Your task to perform on an android device: turn off translation in the chrome app Image 0: 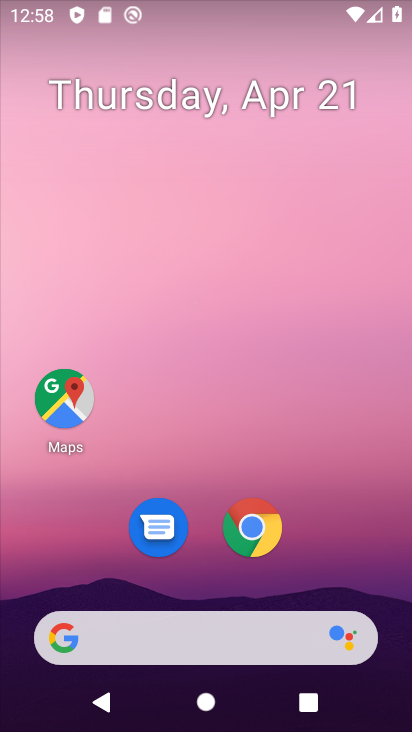
Step 0: drag from (333, 541) to (355, 89)
Your task to perform on an android device: turn off translation in the chrome app Image 1: 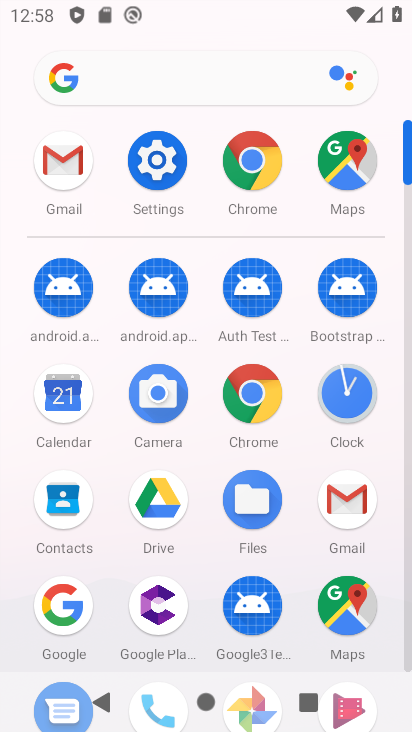
Step 1: click (264, 402)
Your task to perform on an android device: turn off translation in the chrome app Image 2: 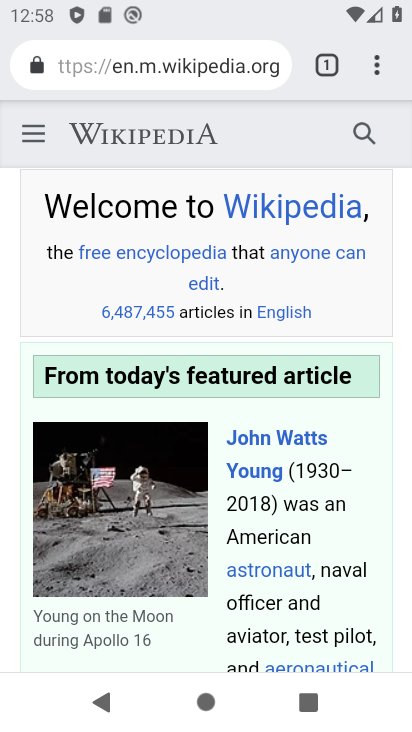
Step 2: click (377, 74)
Your task to perform on an android device: turn off translation in the chrome app Image 3: 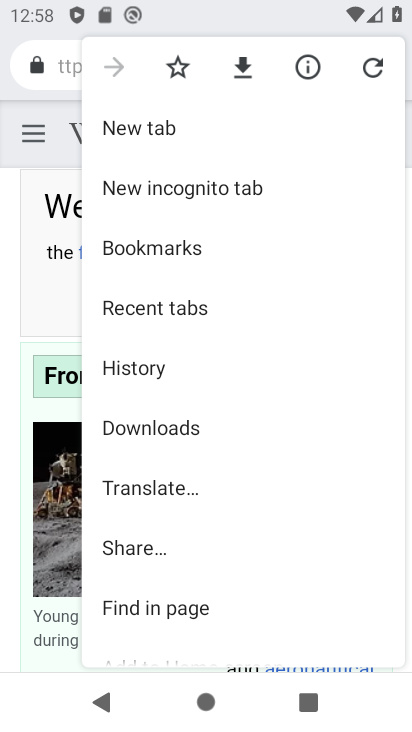
Step 3: drag from (301, 551) to (293, 363)
Your task to perform on an android device: turn off translation in the chrome app Image 4: 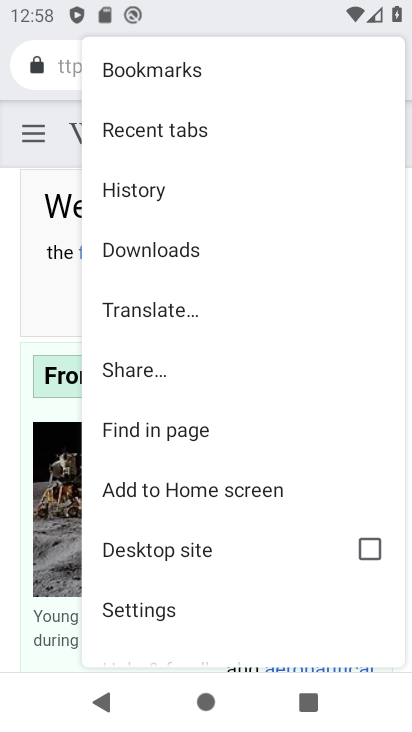
Step 4: drag from (270, 584) to (269, 431)
Your task to perform on an android device: turn off translation in the chrome app Image 5: 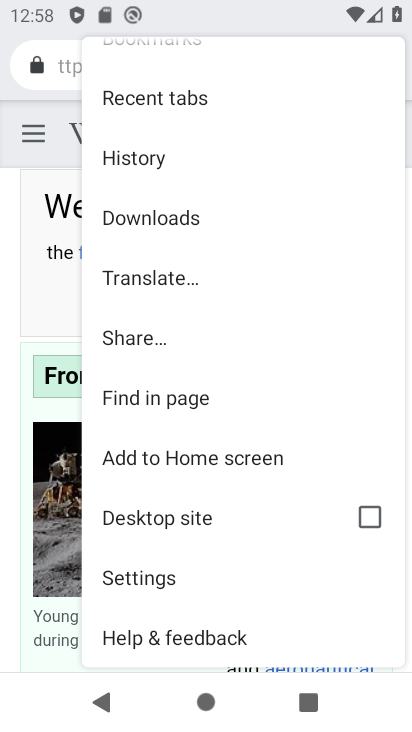
Step 5: click (177, 577)
Your task to perform on an android device: turn off translation in the chrome app Image 6: 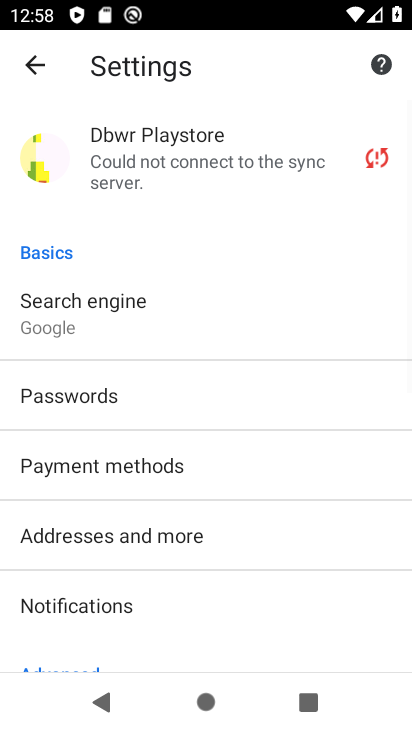
Step 6: drag from (267, 581) to (275, 459)
Your task to perform on an android device: turn off translation in the chrome app Image 7: 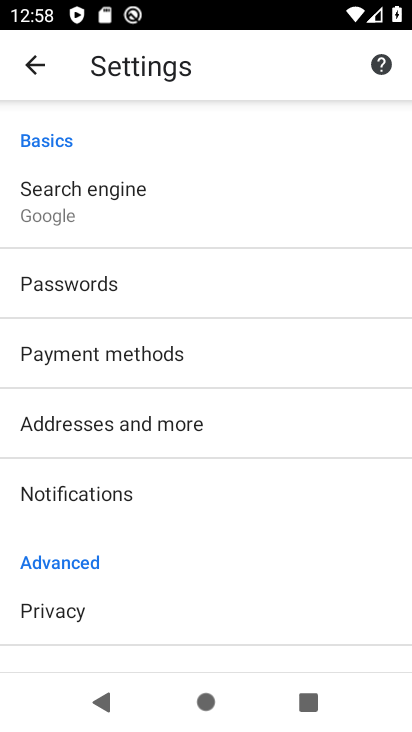
Step 7: drag from (289, 577) to (294, 443)
Your task to perform on an android device: turn off translation in the chrome app Image 8: 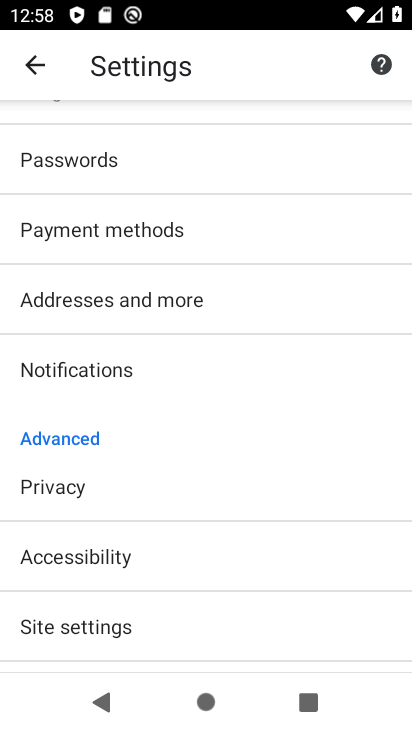
Step 8: drag from (298, 608) to (311, 443)
Your task to perform on an android device: turn off translation in the chrome app Image 9: 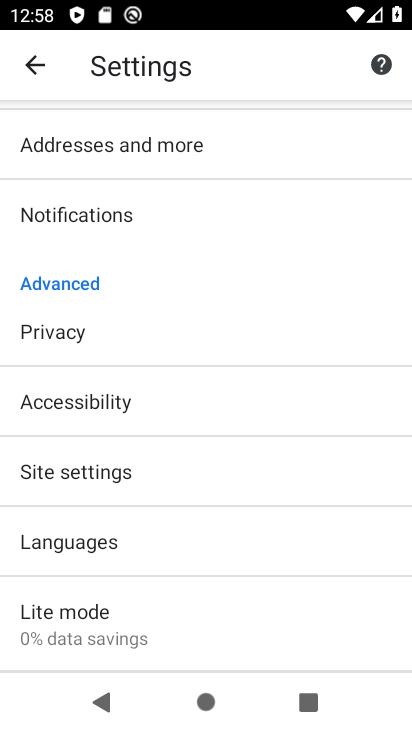
Step 9: drag from (303, 611) to (306, 471)
Your task to perform on an android device: turn off translation in the chrome app Image 10: 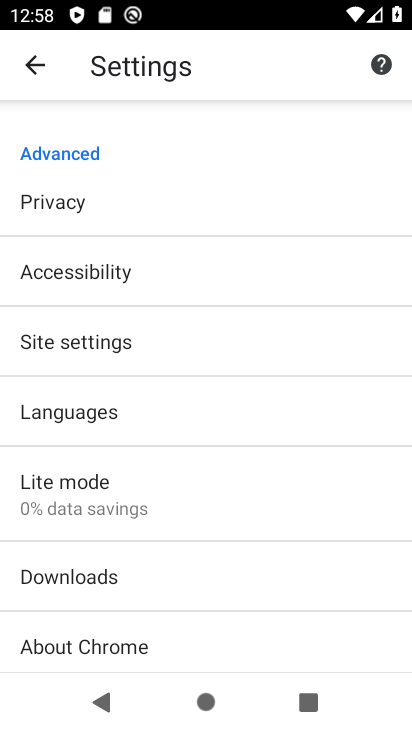
Step 10: drag from (300, 634) to (302, 446)
Your task to perform on an android device: turn off translation in the chrome app Image 11: 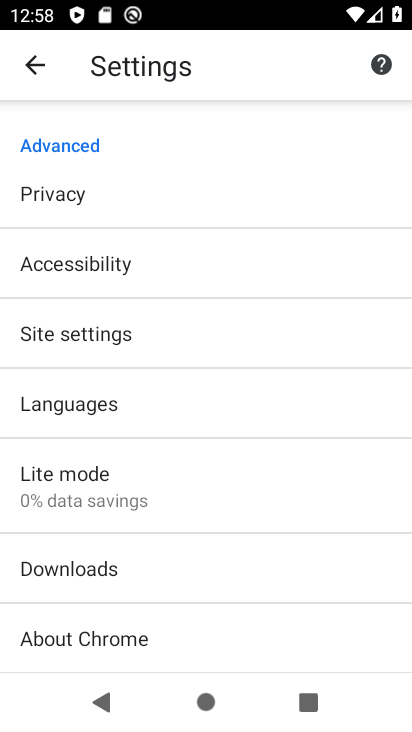
Step 11: click (176, 394)
Your task to perform on an android device: turn off translation in the chrome app Image 12: 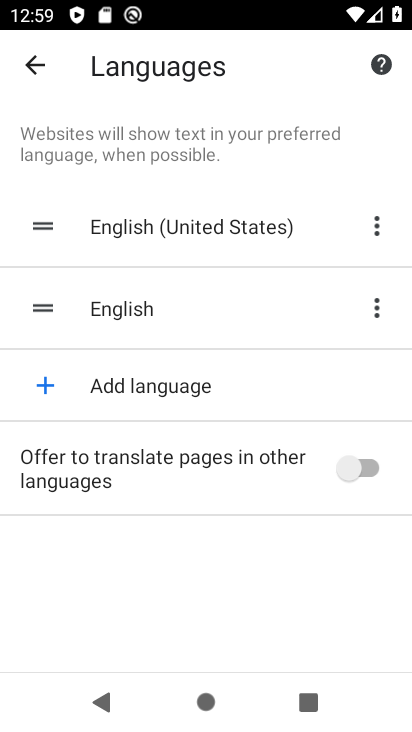
Step 12: task complete